Your task to perform on an android device: stop showing notifications on the lock screen Image 0: 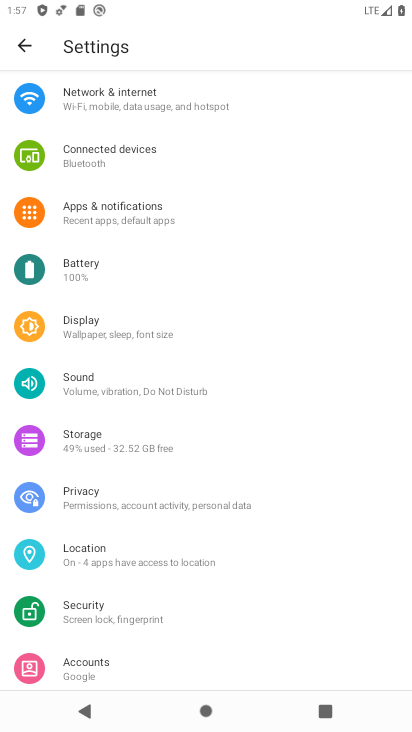
Step 0: press home button
Your task to perform on an android device: stop showing notifications on the lock screen Image 1: 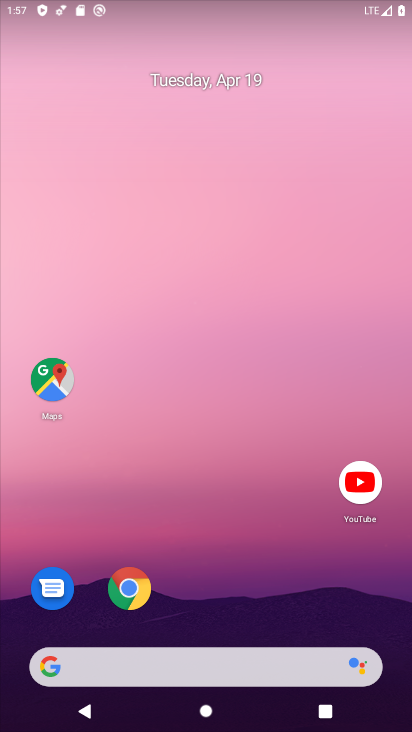
Step 1: drag from (265, 557) to (298, 131)
Your task to perform on an android device: stop showing notifications on the lock screen Image 2: 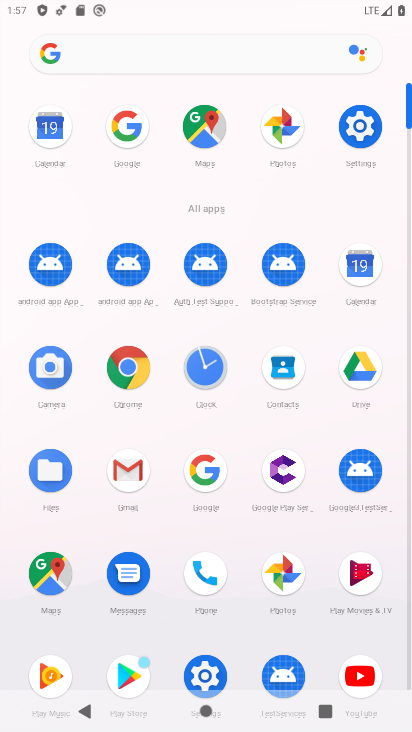
Step 2: click (210, 677)
Your task to perform on an android device: stop showing notifications on the lock screen Image 3: 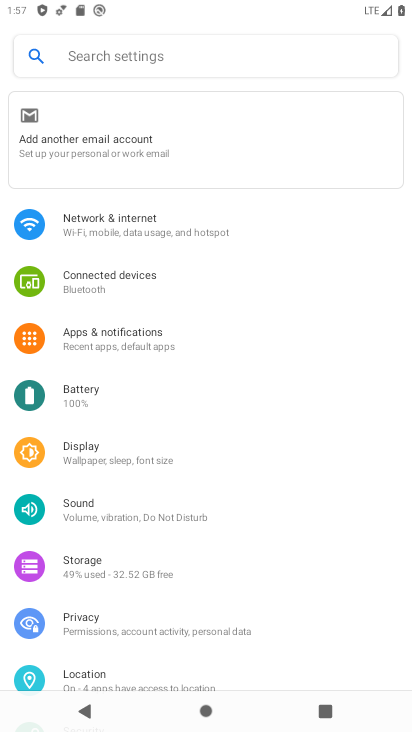
Step 3: click (145, 335)
Your task to perform on an android device: stop showing notifications on the lock screen Image 4: 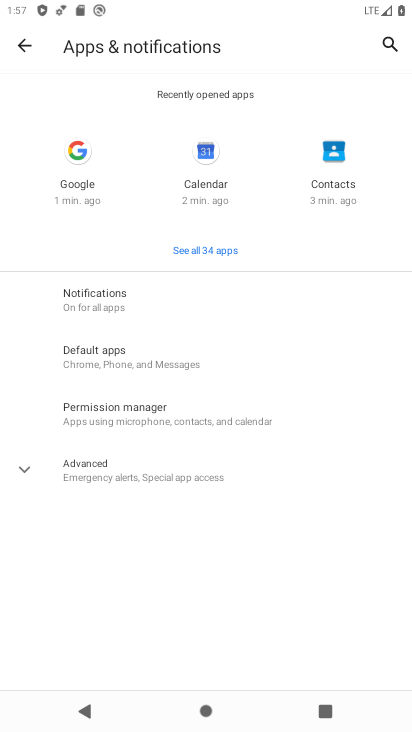
Step 4: click (142, 304)
Your task to perform on an android device: stop showing notifications on the lock screen Image 5: 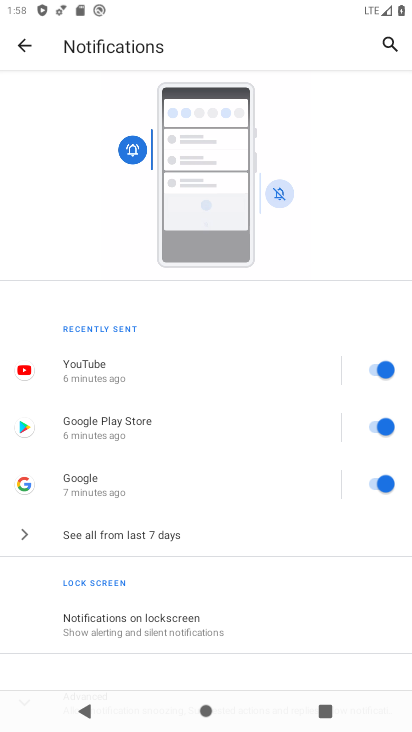
Step 5: click (137, 623)
Your task to perform on an android device: stop showing notifications on the lock screen Image 6: 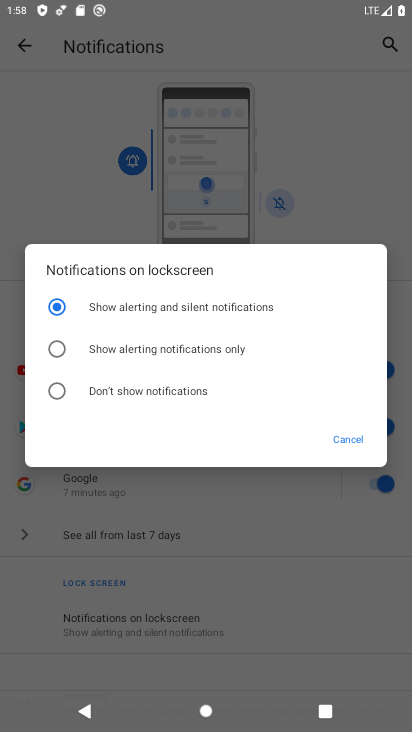
Step 6: click (119, 393)
Your task to perform on an android device: stop showing notifications on the lock screen Image 7: 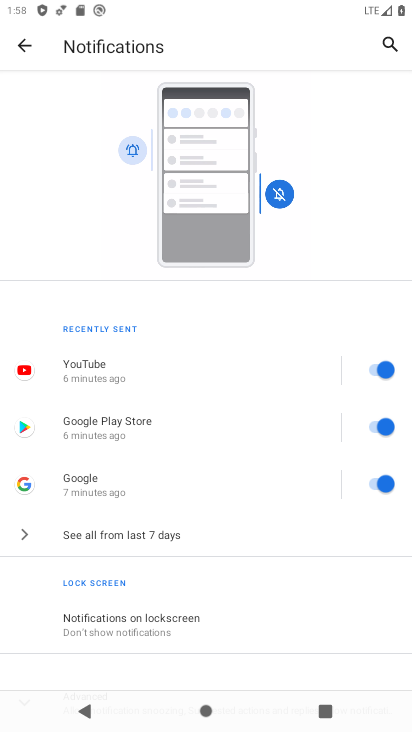
Step 7: task complete